Your task to perform on an android device: visit the assistant section in the google photos Image 0: 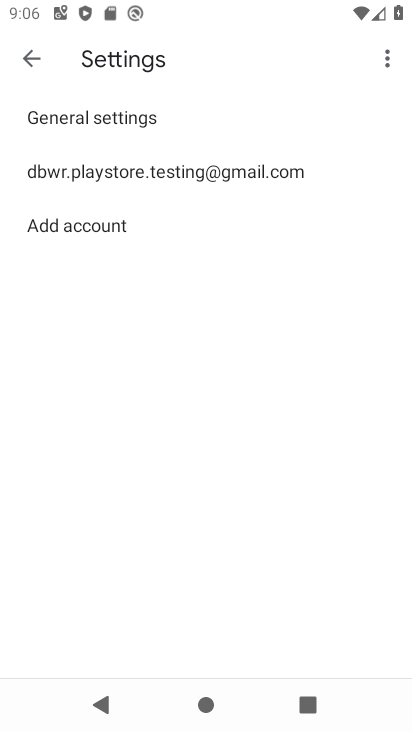
Step 0: press home button
Your task to perform on an android device: visit the assistant section in the google photos Image 1: 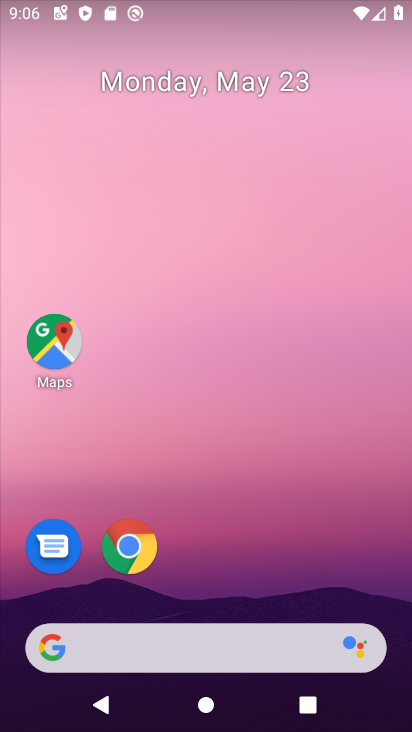
Step 1: drag from (393, 616) to (360, 73)
Your task to perform on an android device: visit the assistant section in the google photos Image 2: 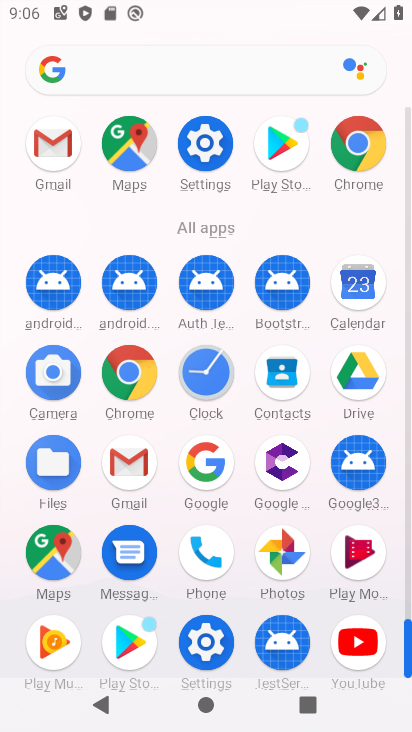
Step 2: click (283, 545)
Your task to perform on an android device: visit the assistant section in the google photos Image 3: 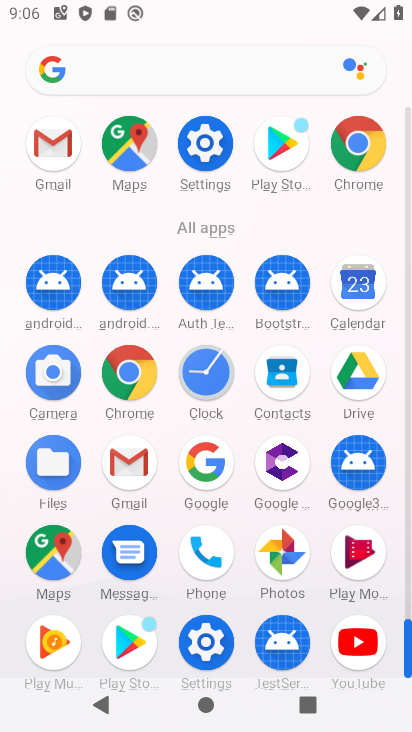
Step 3: click (283, 545)
Your task to perform on an android device: visit the assistant section in the google photos Image 4: 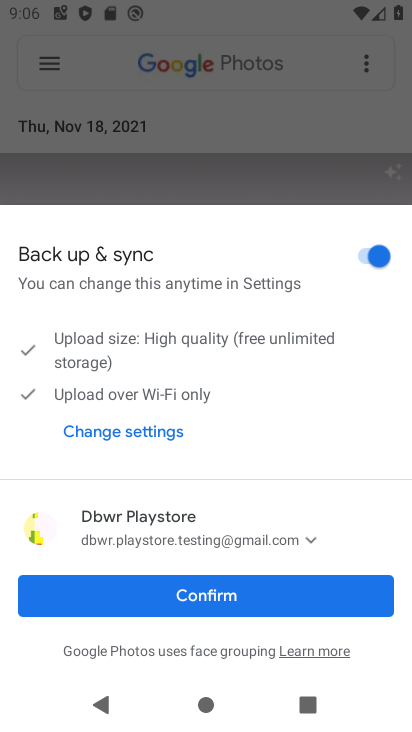
Step 4: click (238, 593)
Your task to perform on an android device: visit the assistant section in the google photos Image 5: 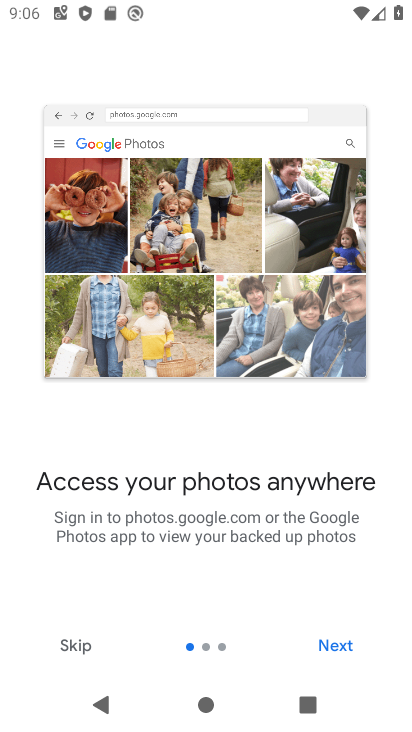
Step 5: click (82, 642)
Your task to perform on an android device: visit the assistant section in the google photos Image 6: 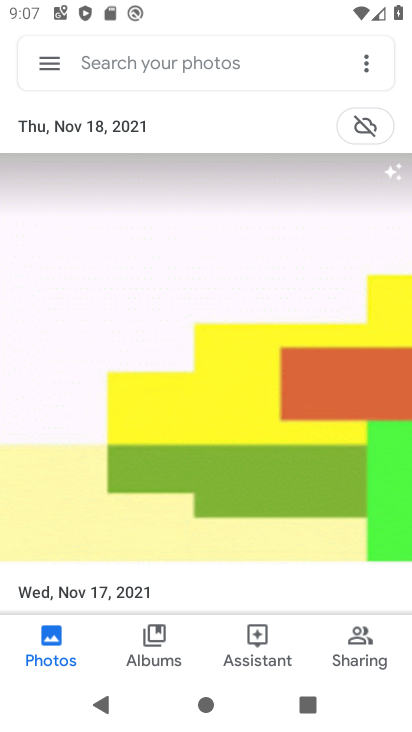
Step 6: click (247, 643)
Your task to perform on an android device: visit the assistant section in the google photos Image 7: 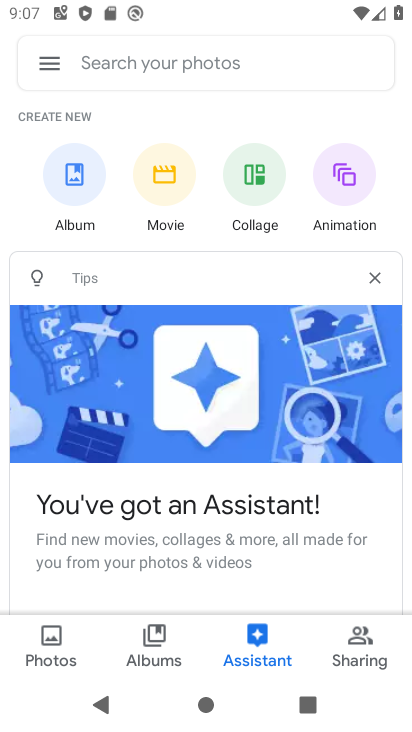
Step 7: task complete